Your task to perform on an android device: Open calendar and show me the fourth week of next month Image 0: 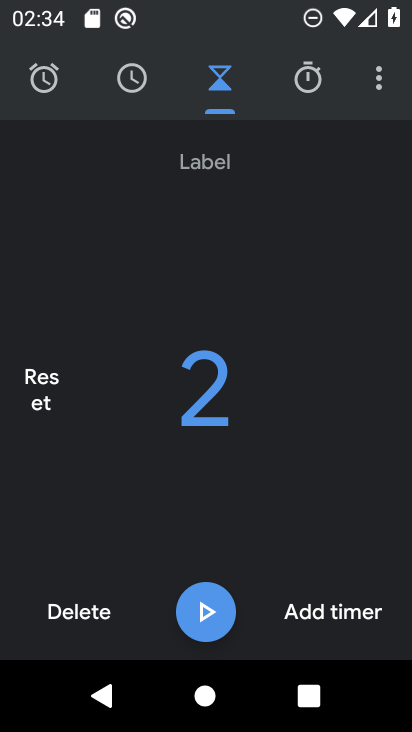
Step 0: press home button
Your task to perform on an android device: Open calendar and show me the fourth week of next month Image 1: 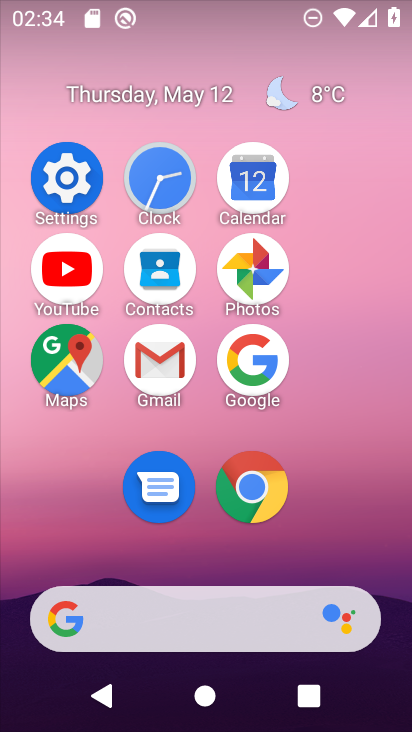
Step 1: click (243, 187)
Your task to perform on an android device: Open calendar and show me the fourth week of next month Image 2: 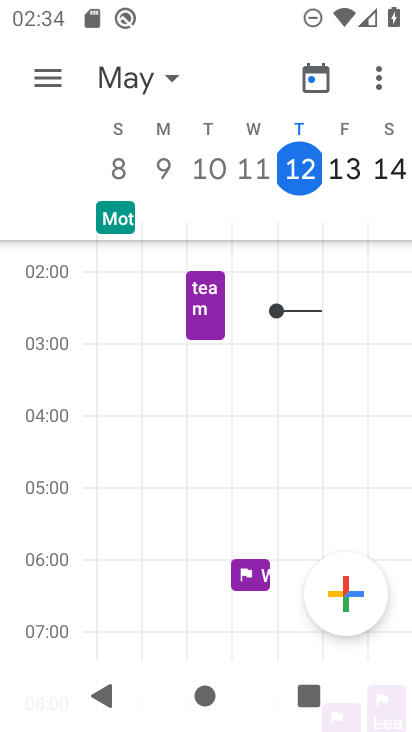
Step 2: click (149, 68)
Your task to perform on an android device: Open calendar and show me the fourth week of next month Image 3: 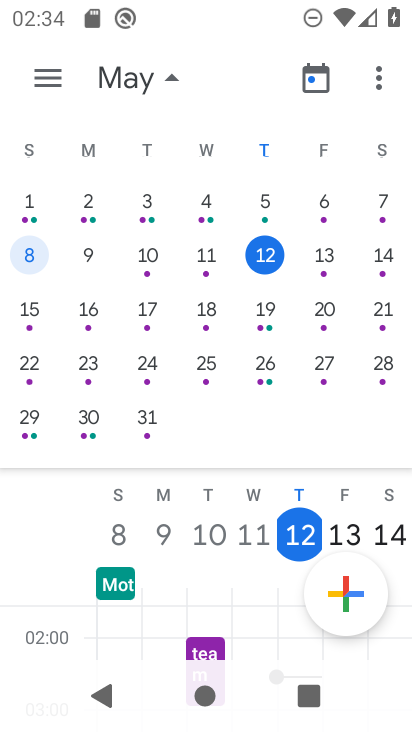
Step 3: drag from (390, 291) to (44, 300)
Your task to perform on an android device: Open calendar and show me the fourth week of next month Image 4: 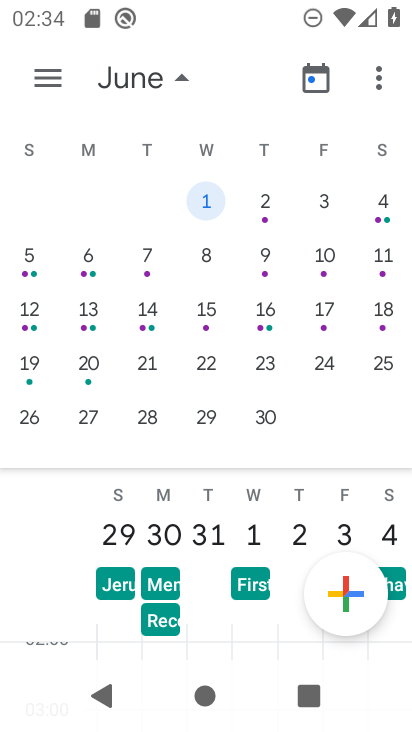
Step 4: click (55, 85)
Your task to perform on an android device: Open calendar and show me the fourth week of next month Image 5: 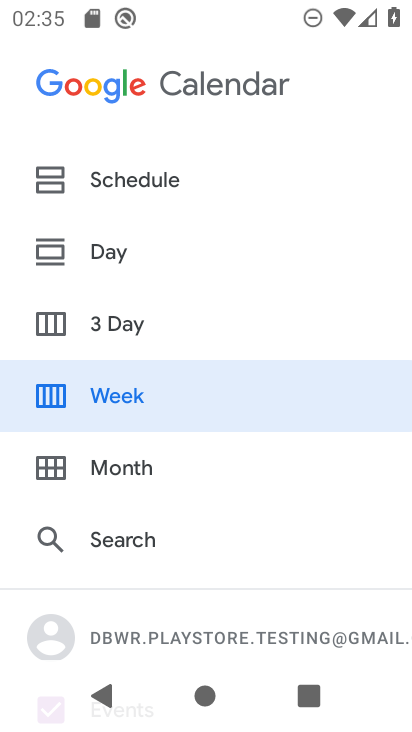
Step 5: click (185, 387)
Your task to perform on an android device: Open calendar and show me the fourth week of next month Image 6: 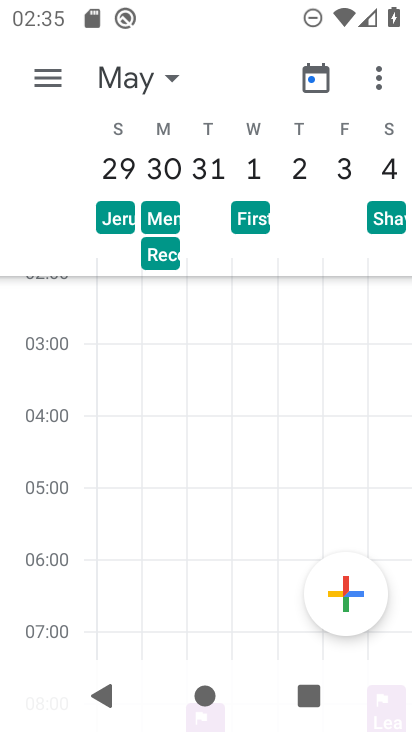
Step 6: task complete